Your task to perform on an android device: clear history in the chrome app Image 0: 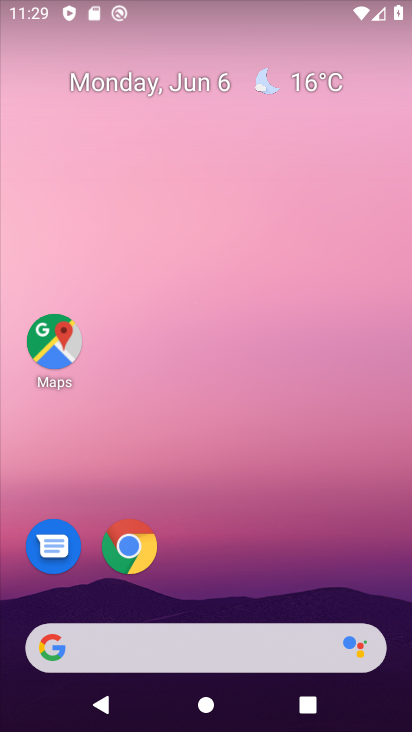
Step 0: click (125, 535)
Your task to perform on an android device: clear history in the chrome app Image 1: 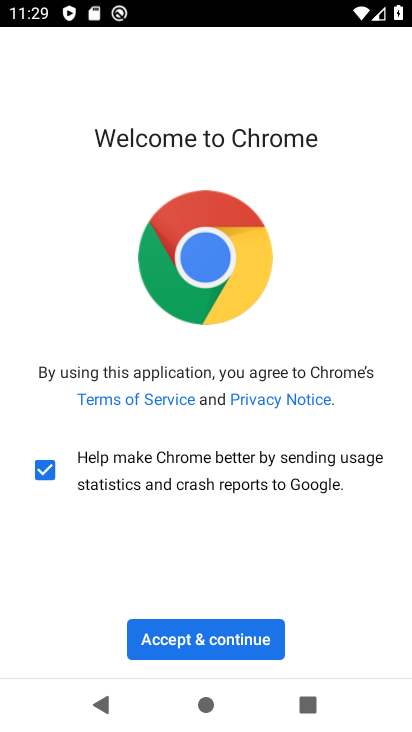
Step 1: click (248, 643)
Your task to perform on an android device: clear history in the chrome app Image 2: 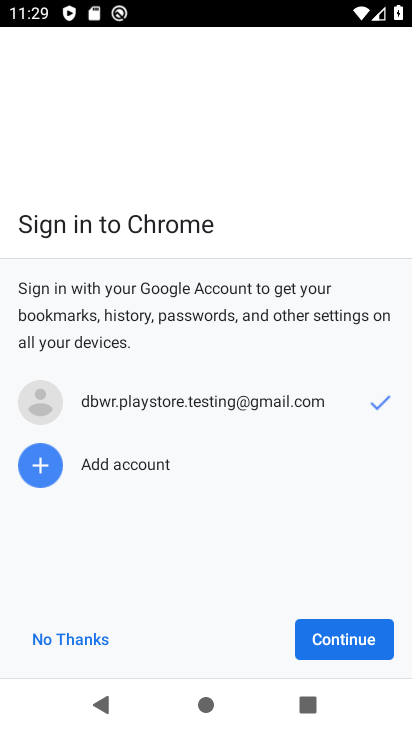
Step 2: click (325, 627)
Your task to perform on an android device: clear history in the chrome app Image 3: 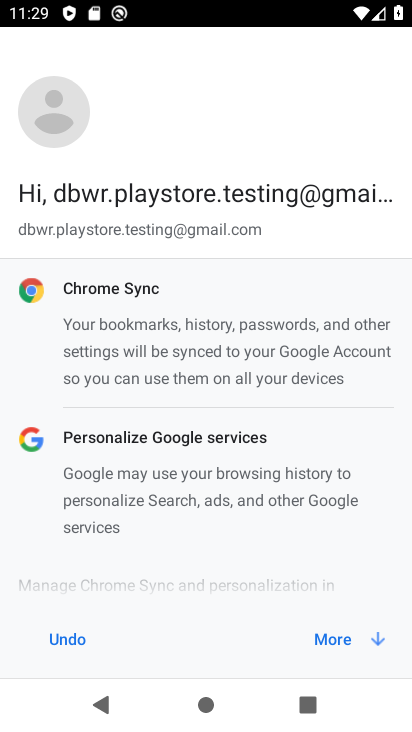
Step 3: click (334, 633)
Your task to perform on an android device: clear history in the chrome app Image 4: 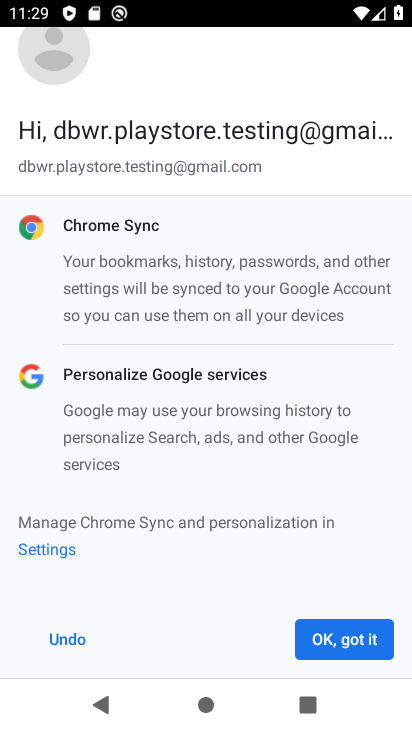
Step 4: click (334, 633)
Your task to perform on an android device: clear history in the chrome app Image 5: 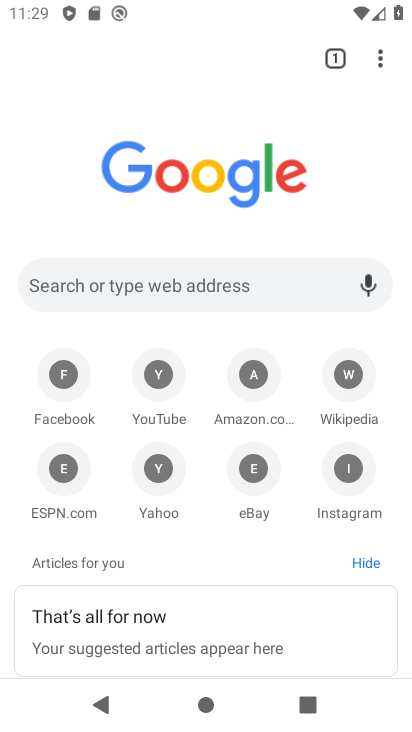
Step 5: click (388, 62)
Your task to perform on an android device: clear history in the chrome app Image 6: 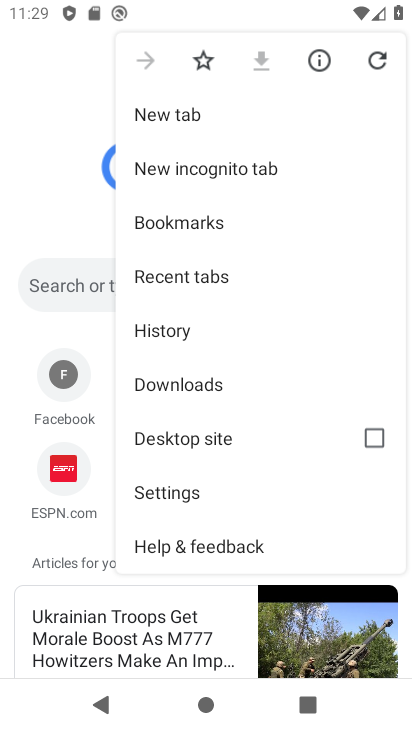
Step 6: click (160, 334)
Your task to perform on an android device: clear history in the chrome app Image 7: 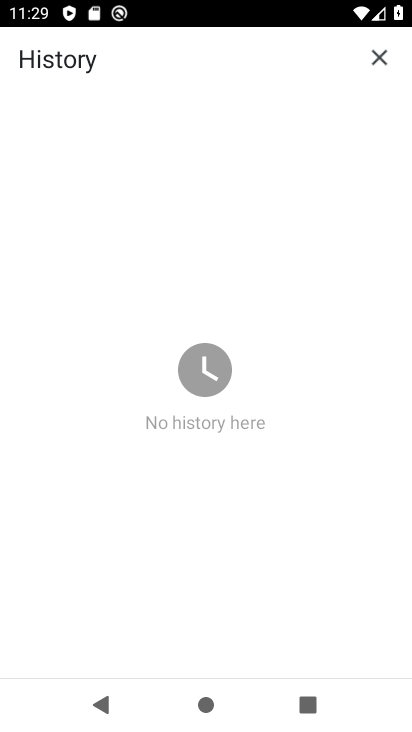
Step 7: task complete